Your task to perform on an android device: remove spam from my inbox in the gmail app Image 0: 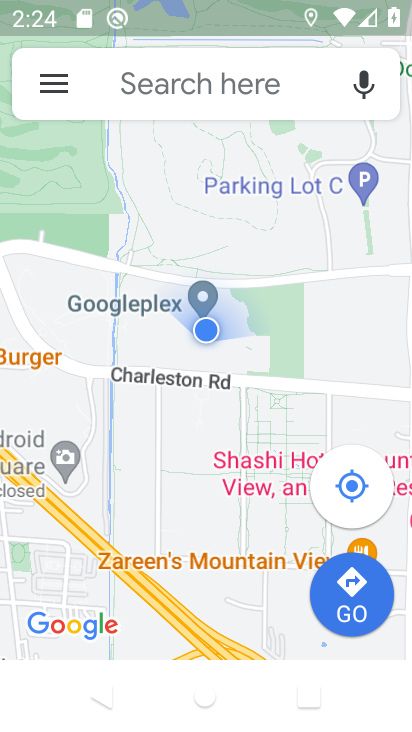
Step 0: press home button
Your task to perform on an android device: remove spam from my inbox in the gmail app Image 1: 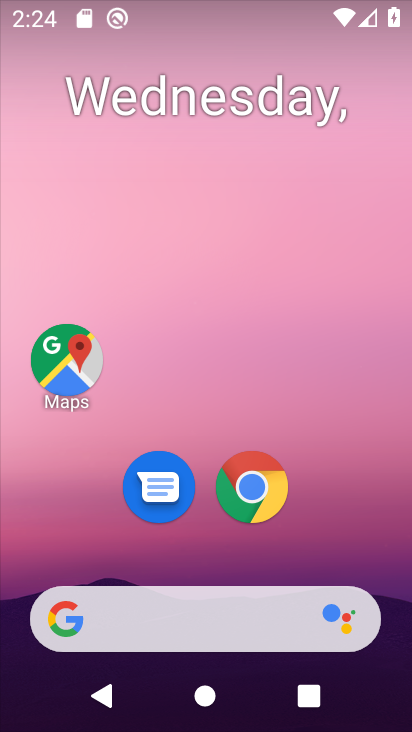
Step 1: drag from (194, 431) to (215, 4)
Your task to perform on an android device: remove spam from my inbox in the gmail app Image 2: 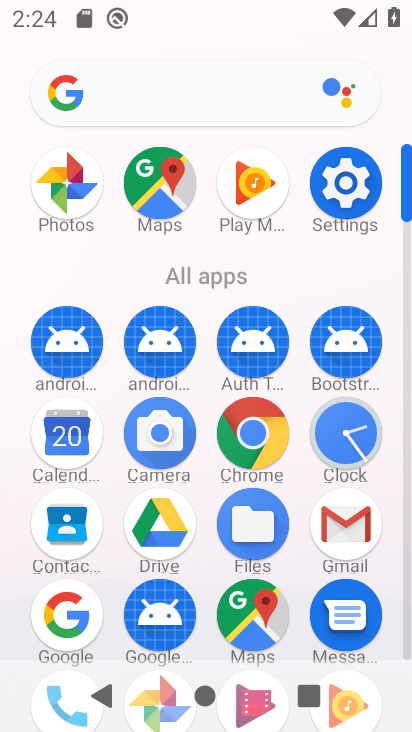
Step 2: click (352, 546)
Your task to perform on an android device: remove spam from my inbox in the gmail app Image 3: 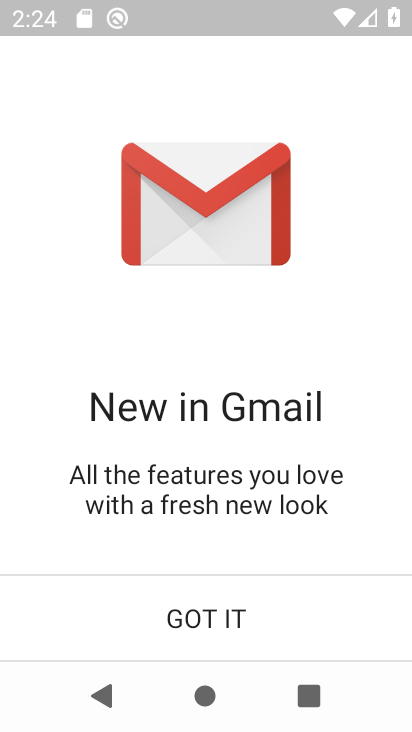
Step 3: click (201, 604)
Your task to perform on an android device: remove spam from my inbox in the gmail app Image 4: 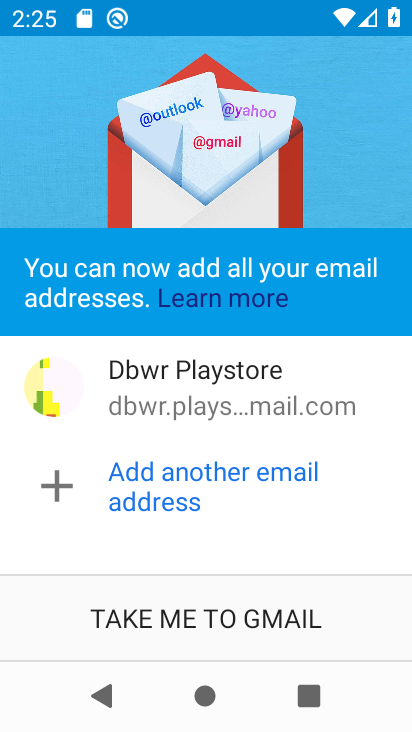
Step 4: click (201, 604)
Your task to perform on an android device: remove spam from my inbox in the gmail app Image 5: 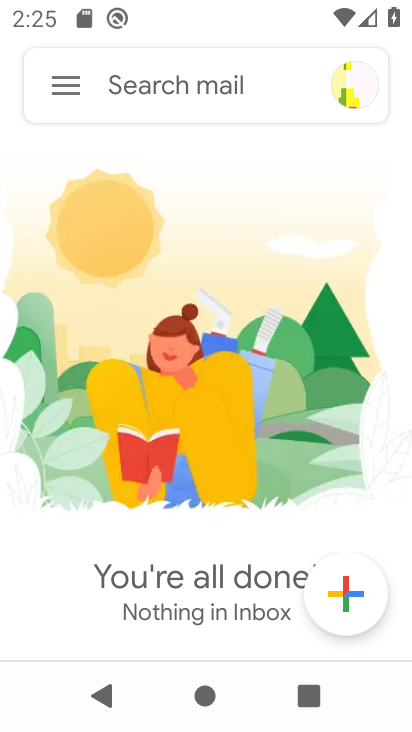
Step 5: click (57, 72)
Your task to perform on an android device: remove spam from my inbox in the gmail app Image 6: 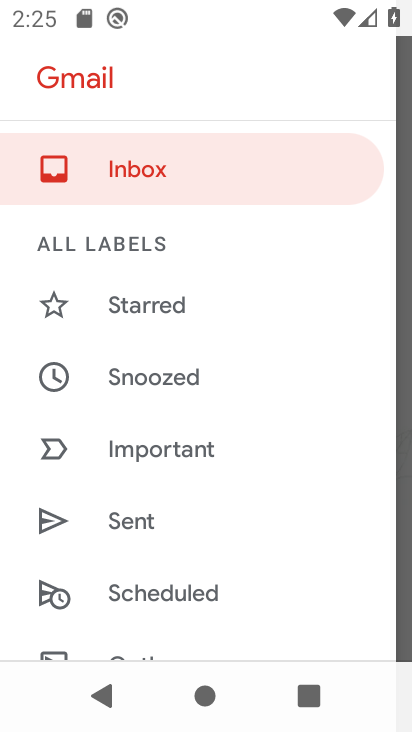
Step 6: drag from (204, 559) to (202, 239)
Your task to perform on an android device: remove spam from my inbox in the gmail app Image 7: 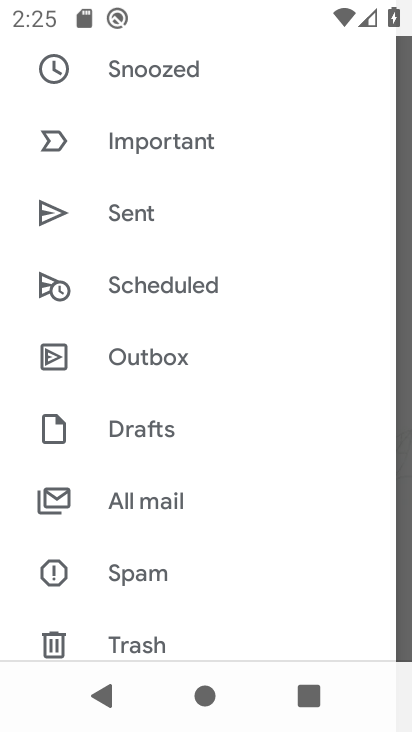
Step 7: click (163, 574)
Your task to perform on an android device: remove spam from my inbox in the gmail app Image 8: 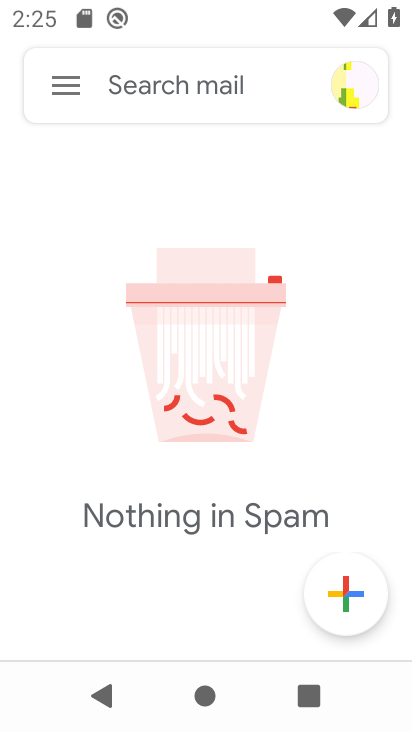
Step 8: task complete